Your task to perform on an android device: Play the last video I watched on Youtube Image 0: 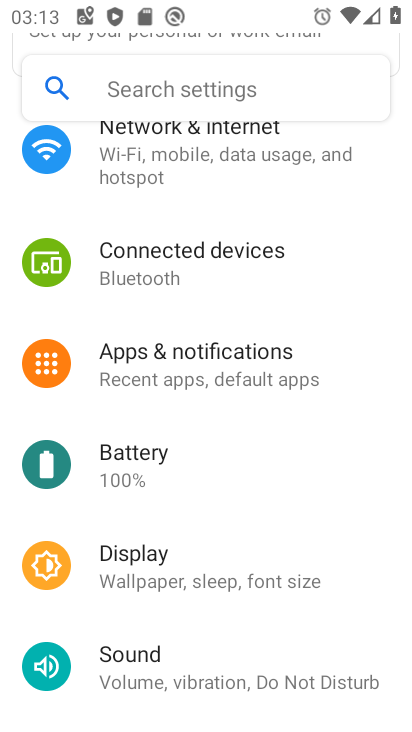
Step 0: press home button
Your task to perform on an android device: Play the last video I watched on Youtube Image 1: 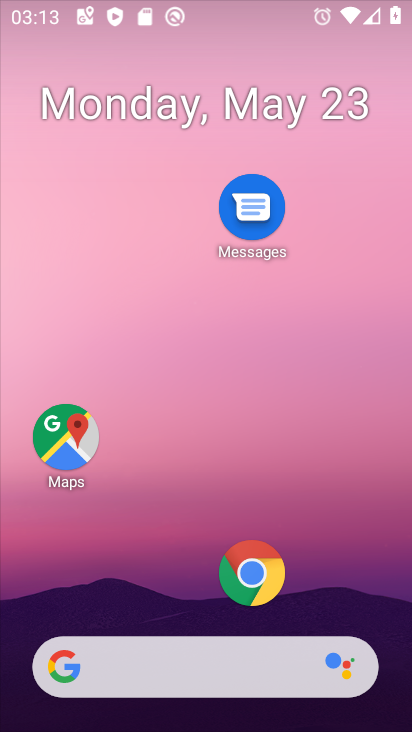
Step 1: drag from (268, 669) to (282, 87)
Your task to perform on an android device: Play the last video I watched on Youtube Image 2: 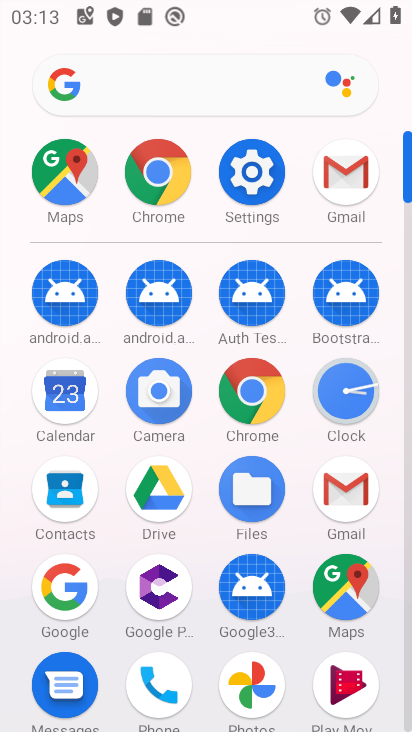
Step 2: drag from (231, 368) to (286, 6)
Your task to perform on an android device: Play the last video I watched on Youtube Image 3: 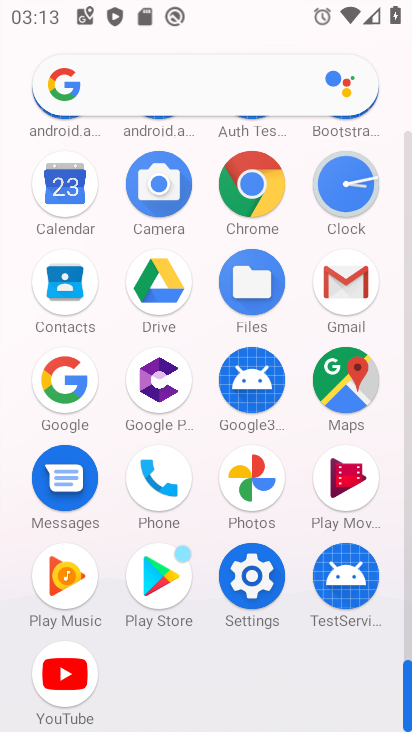
Step 3: drag from (286, 647) to (274, 121)
Your task to perform on an android device: Play the last video I watched on Youtube Image 4: 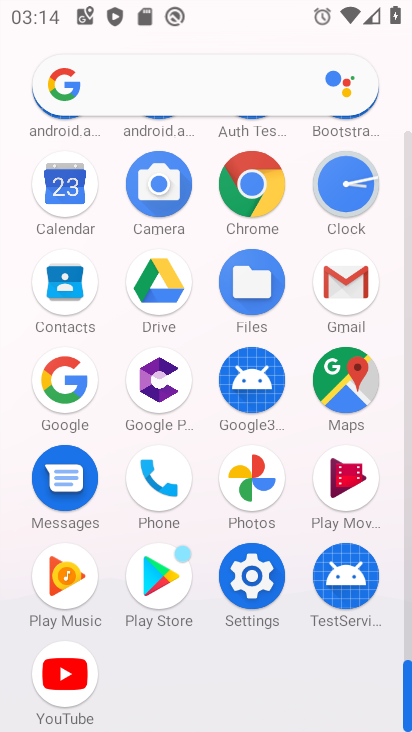
Step 4: click (74, 680)
Your task to perform on an android device: Play the last video I watched on Youtube Image 5: 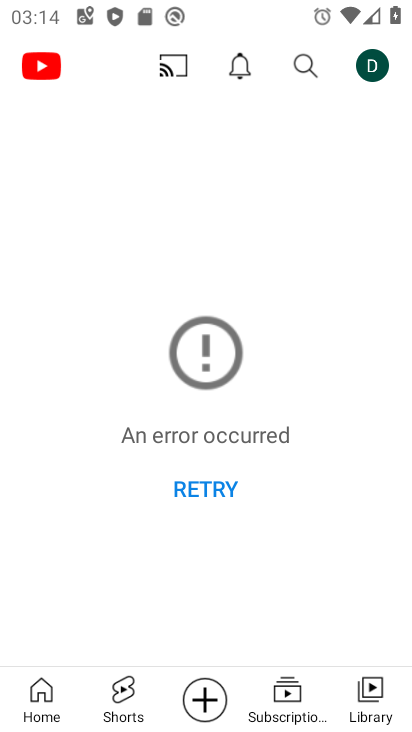
Step 5: click (368, 706)
Your task to perform on an android device: Play the last video I watched on Youtube Image 6: 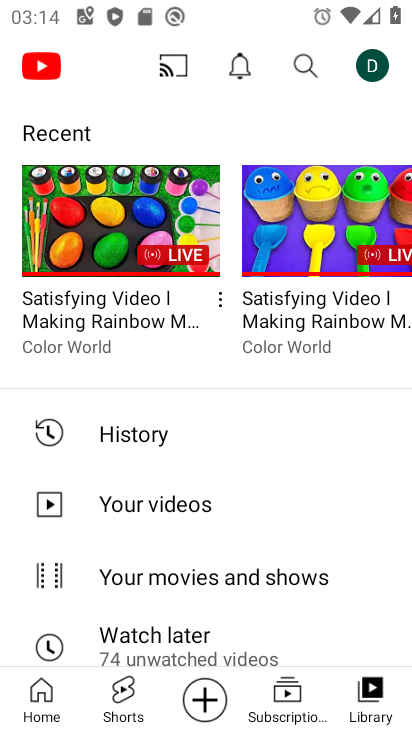
Step 6: click (151, 262)
Your task to perform on an android device: Play the last video I watched on Youtube Image 7: 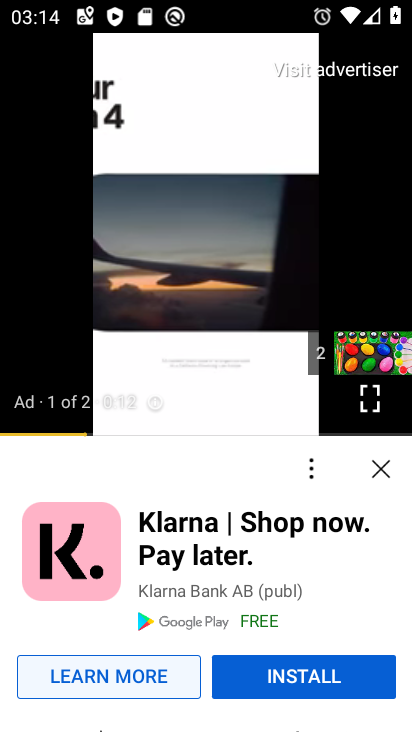
Step 7: click (394, 464)
Your task to perform on an android device: Play the last video I watched on Youtube Image 8: 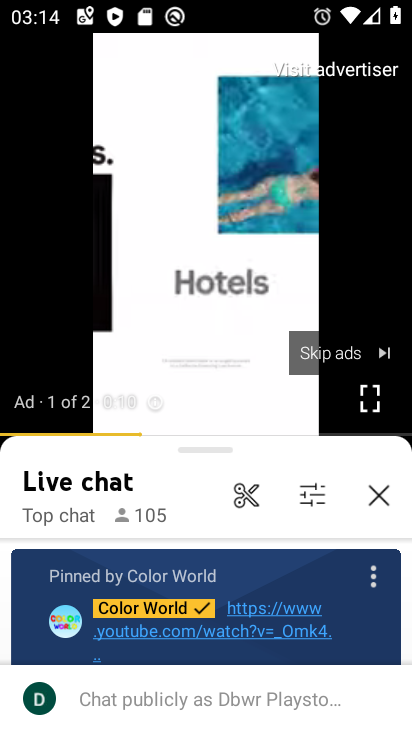
Step 8: click (376, 487)
Your task to perform on an android device: Play the last video I watched on Youtube Image 9: 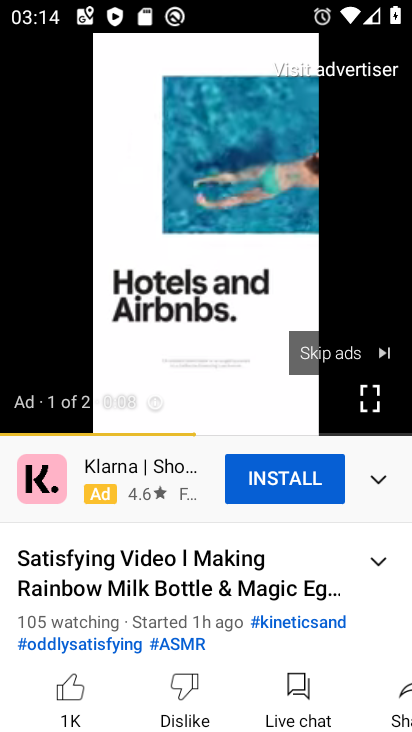
Step 9: click (369, 351)
Your task to perform on an android device: Play the last video I watched on Youtube Image 10: 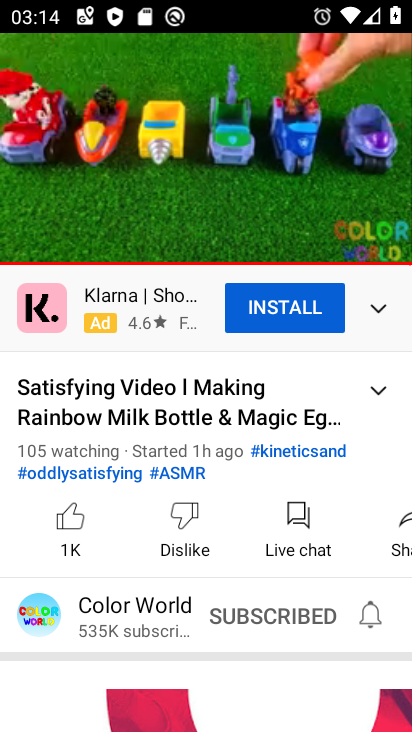
Step 10: task complete